Your task to perform on an android device: Search for Italian restaurants on Maps Image 0: 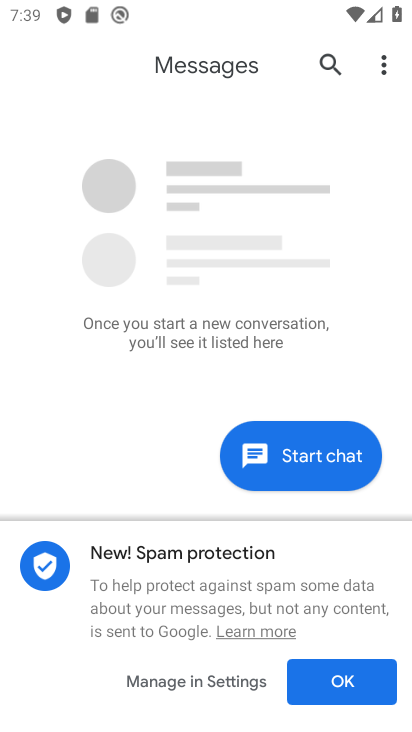
Step 0: press home button
Your task to perform on an android device: Search for Italian restaurants on Maps Image 1: 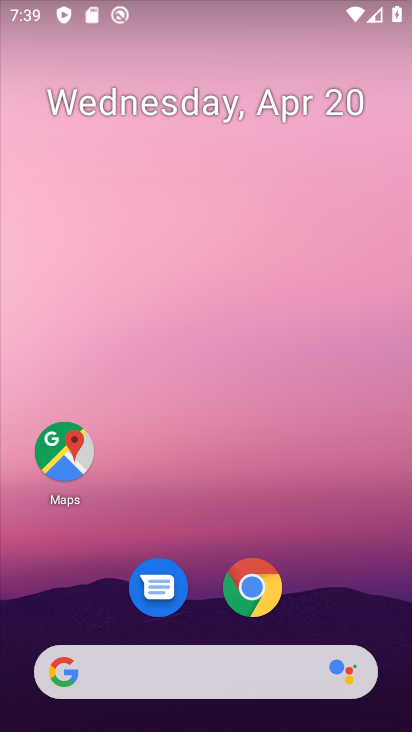
Step 1: drag from (343, 593) to (354, 101)
Your task to perform on an android device: Search for Italian restaurants on Maps Image 2: 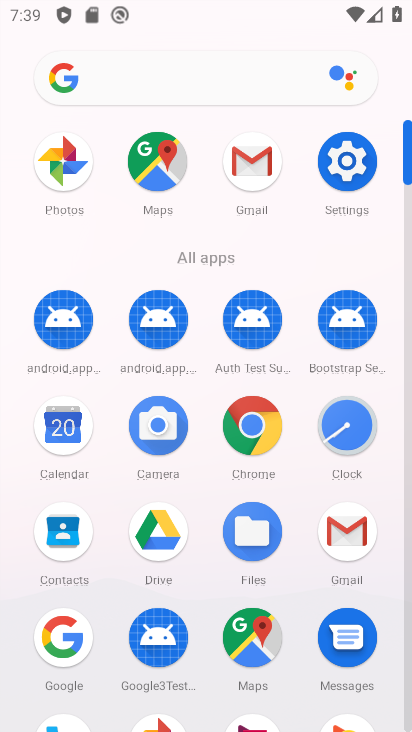
Step 2: click (263, 653)
Your task to perform on an android device: Search for Italian restaurants on Maps Image 3: 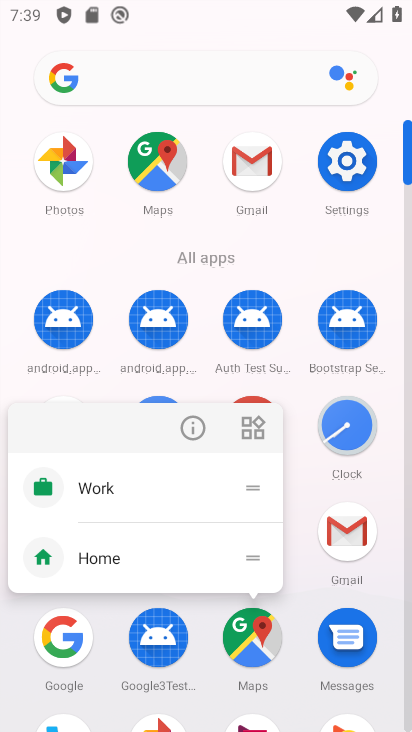
Step 3: click (257, 639)
Your task to perform on an android device: Search for Italian restaurants on Maps Image 4: 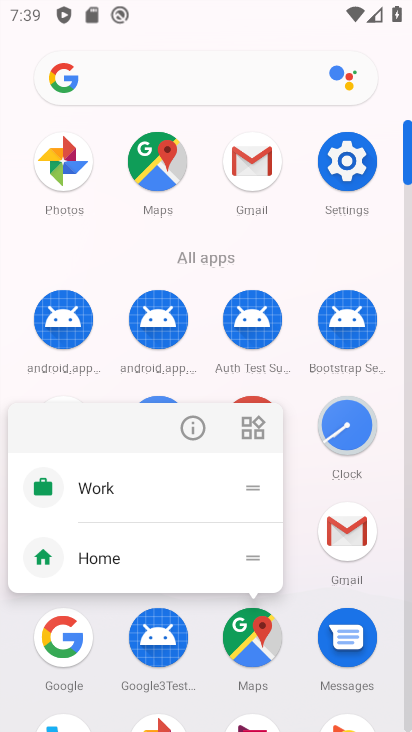
Step 4: click (232, 637)
Your task to perform on an android device: Search for Italian restaurants on Maps Image 5: 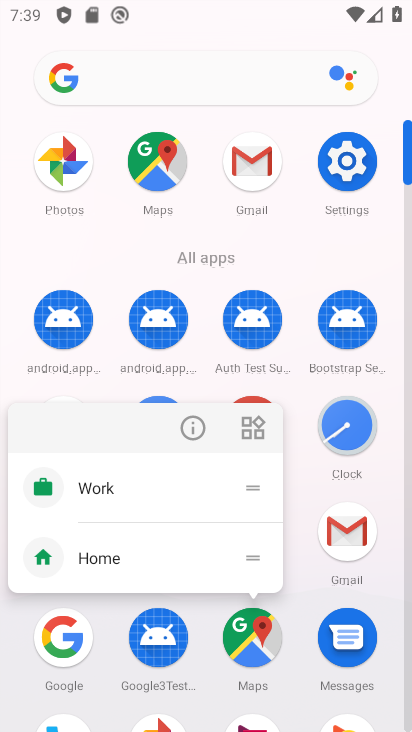
Step 5: click (211, 629)
Your task to perform on an android device: Search for Italian restaurants on Maps Image 6: 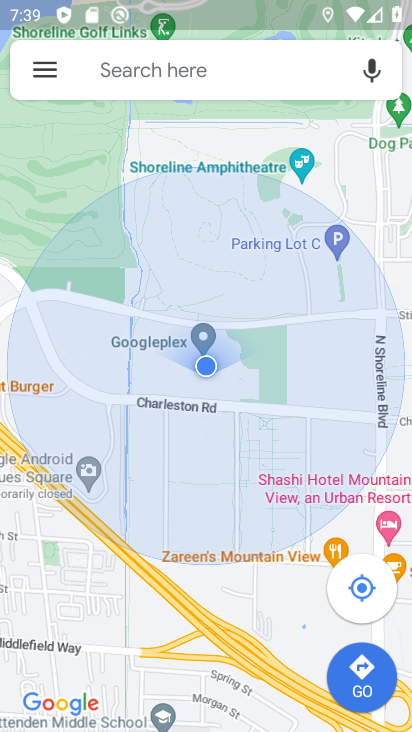
Step 6: click (242, 75)
Your task to perform on an android device: Search for Italian restaurants on Maps Image 7: 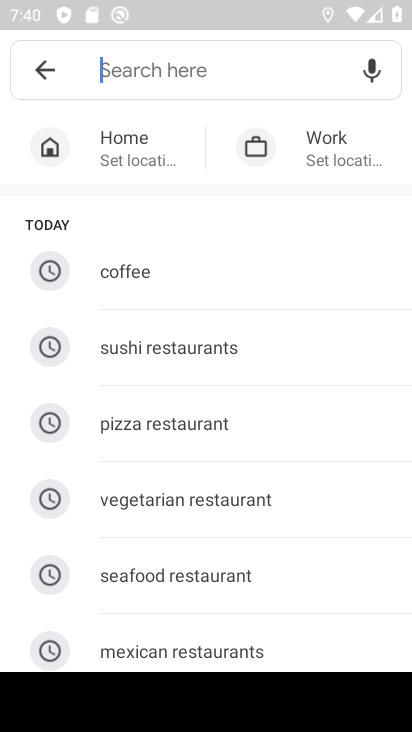
Step 7: type "italian restaurants"
Your task to perform on an android device: Search for Italian restaurants on Maps Image 8: 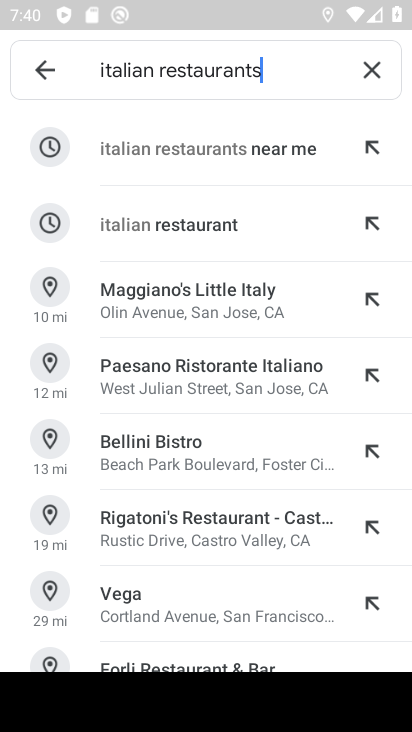
Step 8: click (227, 216)
Your task to perform on an android device: Search for Italian restaurants on Maps Image 9: 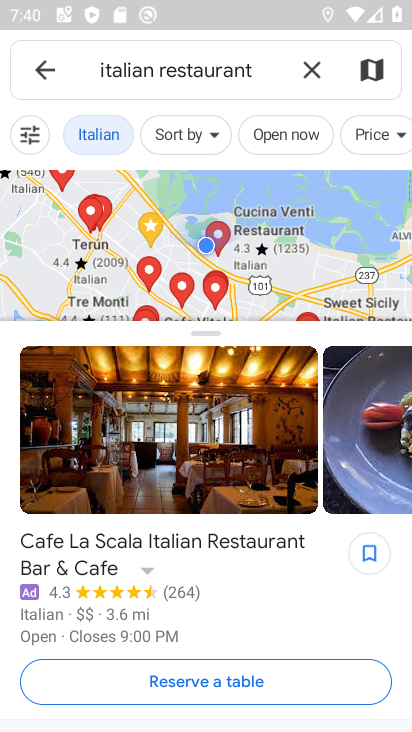
Step 9: task complete